Your task to perform on an android device: allow cookies in the chrome app Image 0: 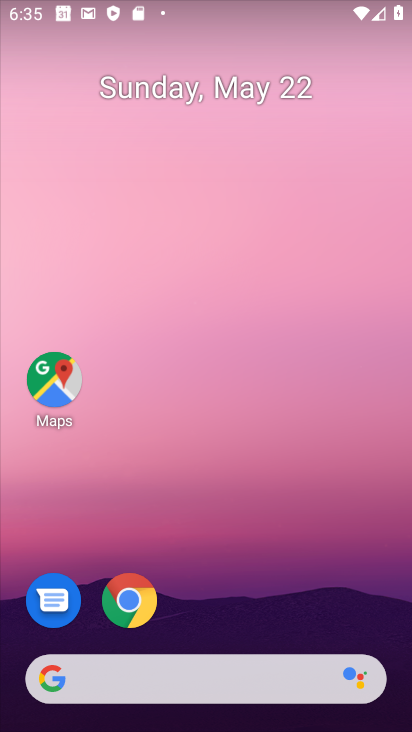
Step 0: drag from (332, 623) to (201, 125)
Your task to perform on an android device: allow cookies in the chrome app Image 1: 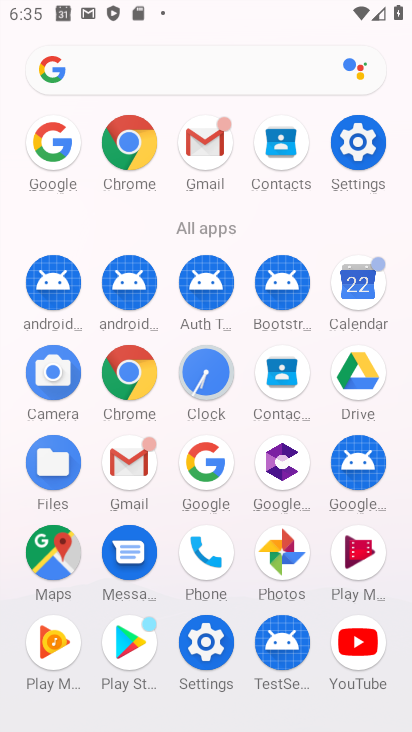
Step 1: click (125, 161)
Your task to perform on an android device: allow cookies in the chrome app Image 2: 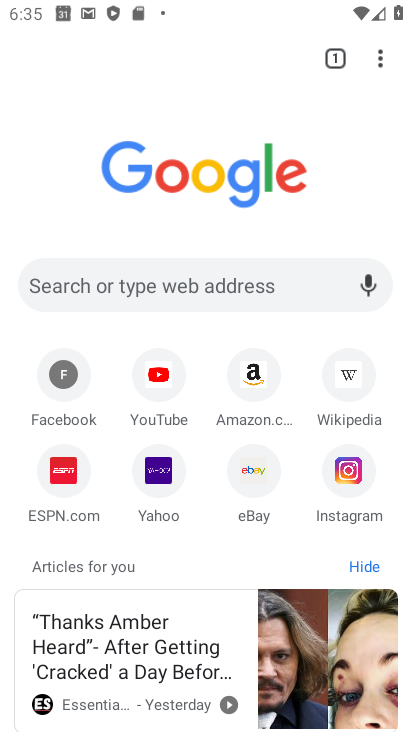
Step 2: click (372, 56)
Your task to perform on an android device: allow cookies in the chrome app Image 3: 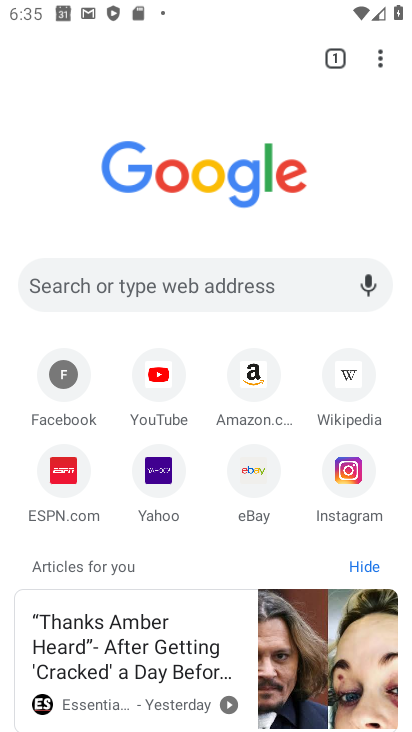
Step 3: click (380, 57)
Your task to perform on an android device: allow cookies in the chrome app Image 4: 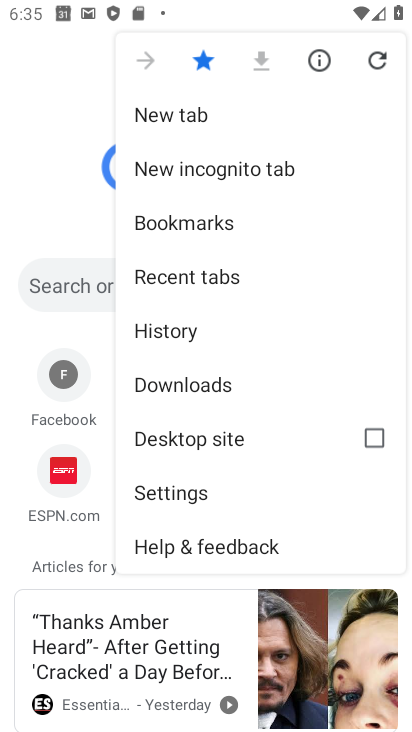
Step 4: click (237, 327)
Your task to perform on an android device: allow cookies in the chrome app Image 5: 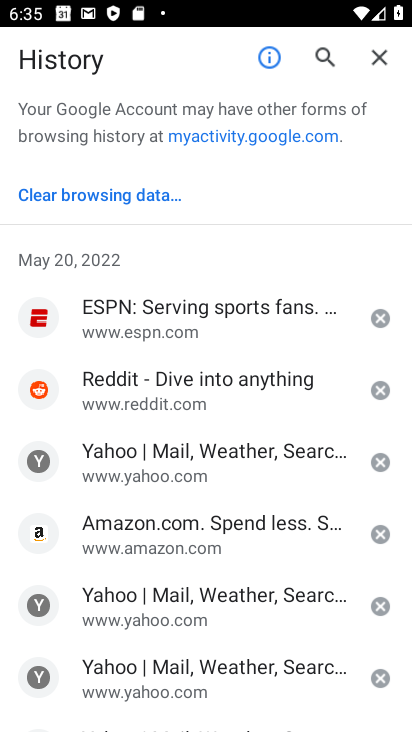
Step 5: click (127, 196)
Your task to perform on an android device: allow cookies in the chrome app Image 6: 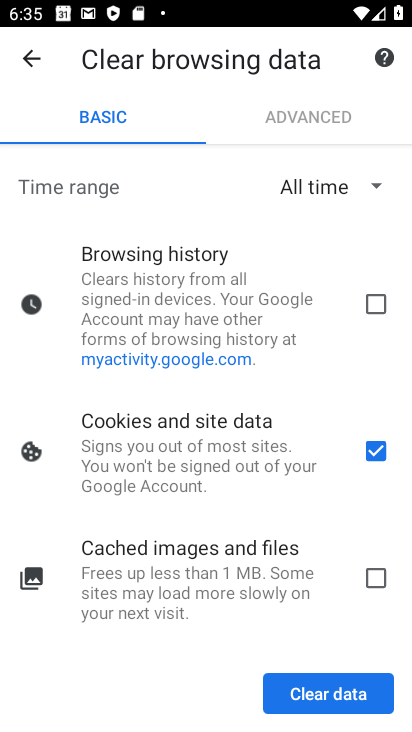
Step 6: task complete